Your task to perform on an android device: change timer sound Image 0: 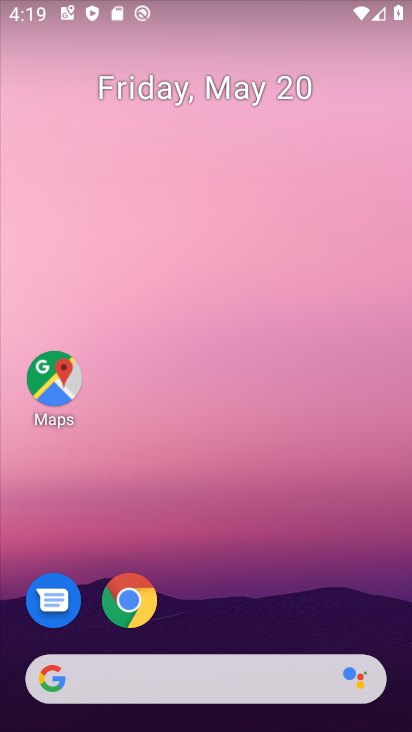
Step 0: drag from (263, 551) to (242, 19)
Your task to perform on an android device: change timer sound Image 1: 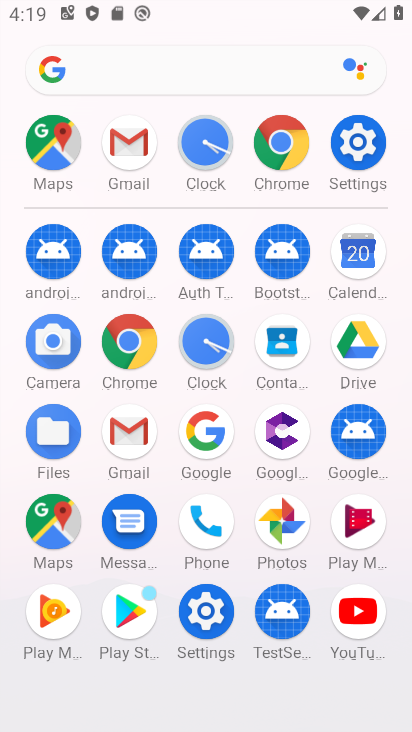
Step 1: drag from (14, 490) to (19, 216)
Your task to perform on an android device: change timer sound Image 2: 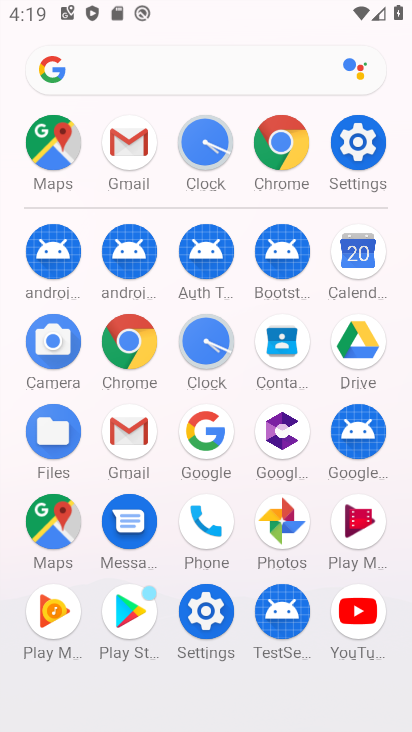
Step 2: click (203, 337)
Your task to perform on an android device: change timer sound Image 3: 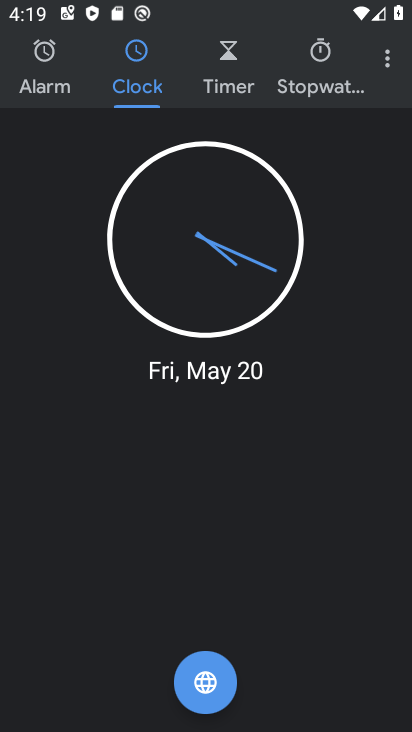
Step 3: drag from (376, 60) to (269, 117)
Your task to perform on an android device: change timer sound Image 4: 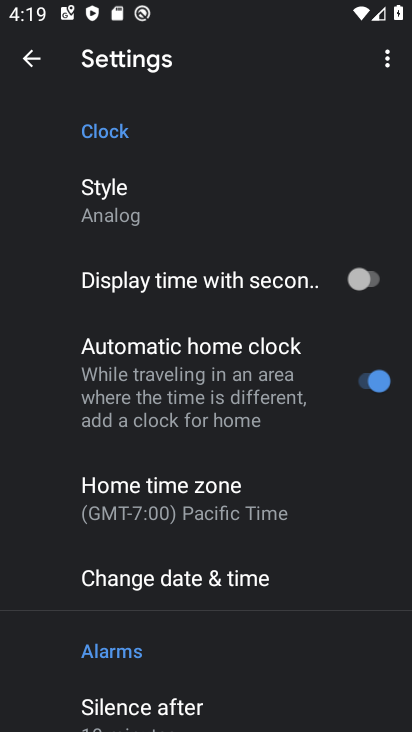
Step 4: drag from (63, 520) to (66, 228)
Your task to perform on an android device: change timer sound Image 5: 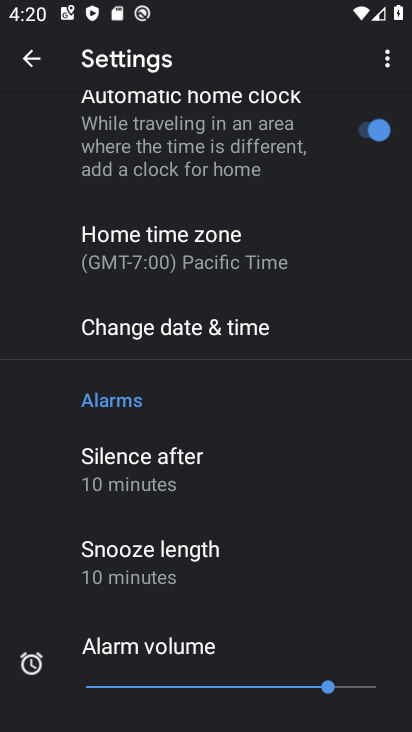
Step 5: drag from (171, 221) to (132, 610)
Your task to perform on an android device: change timer sound Image 6: 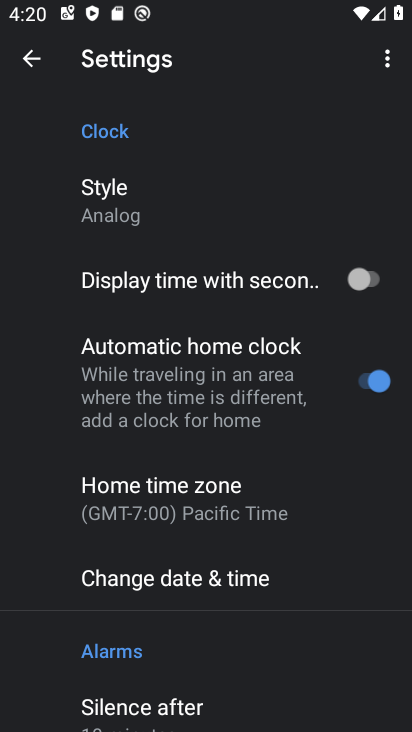
Step 6: click (138, 197)
Your task to perform on an android device: change timer sound Image 7: 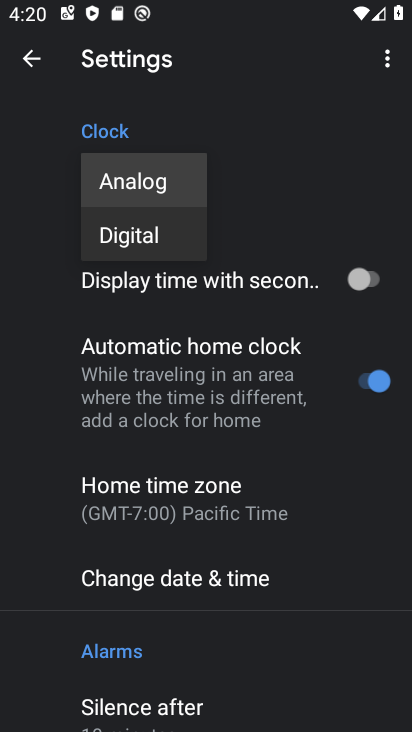
Step 7: click (9, 469)
Your task to perform on an android device: change timer sound Image 8: 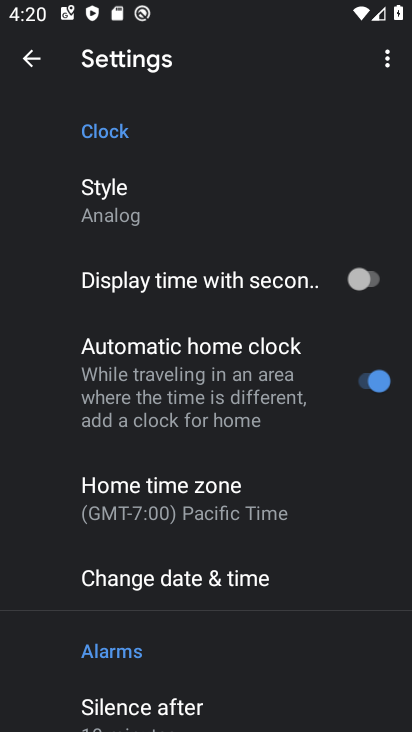
Step 8: drag from (20, 514) to (19, 143)
Your task to perform on an android device: change timer sound Image 9: 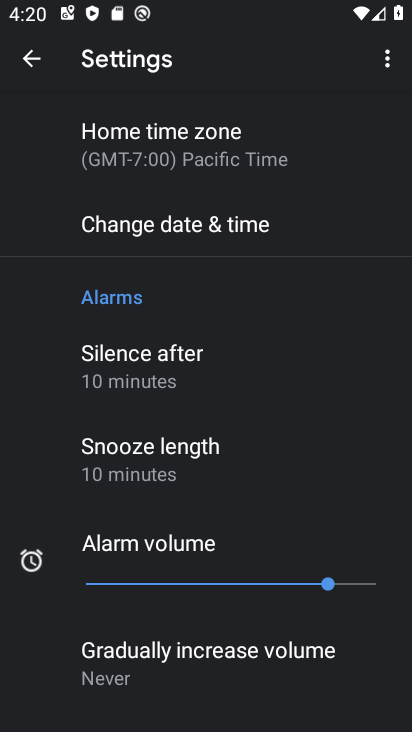
Step 9: drag from (12, 523) to (8, 192)
Your task to perform on an android device: change timer sound Image 10: 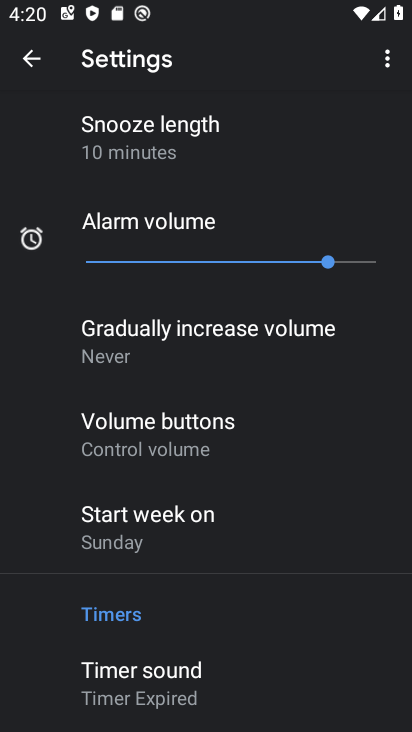
Step 10: drag from (32, 593) to (43, 258)
Your task to perform on an android device: change timer sound Image 11: 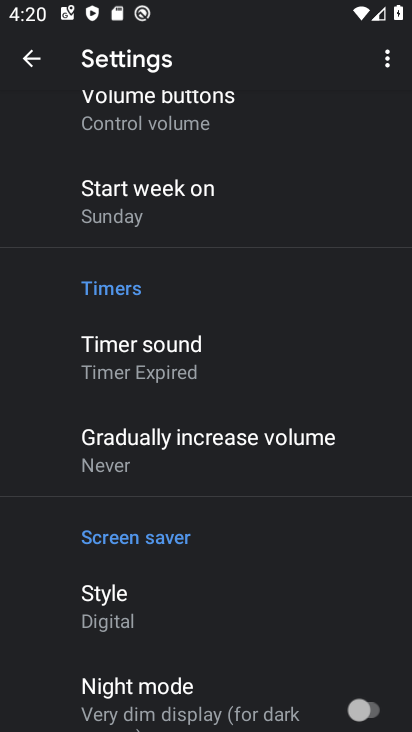
Step 11: click (140, 367)
Your task to perform on an android device: change timer sound Image 12: 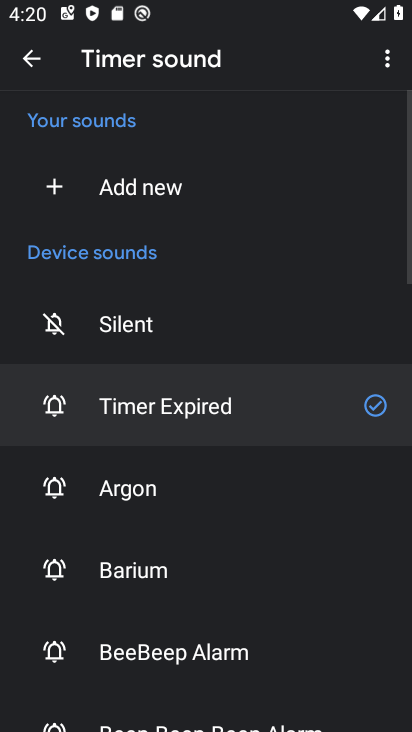
Step 12: click (130, 577)
Your task to perform on an android device: change timer sound Image 13: 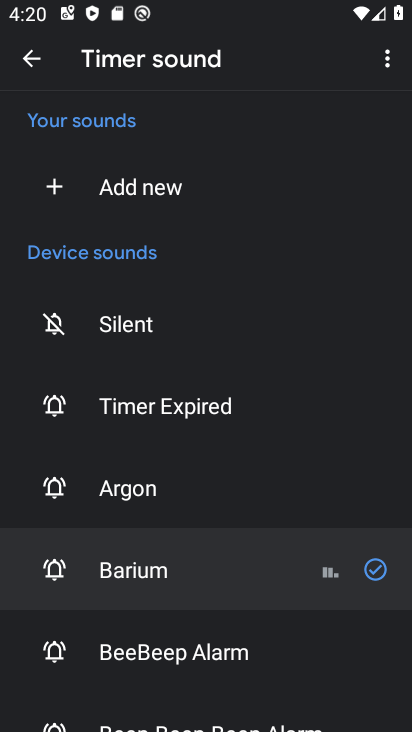
Step 13: task complete